Your task to perform on an android device: turn off location Image 0: 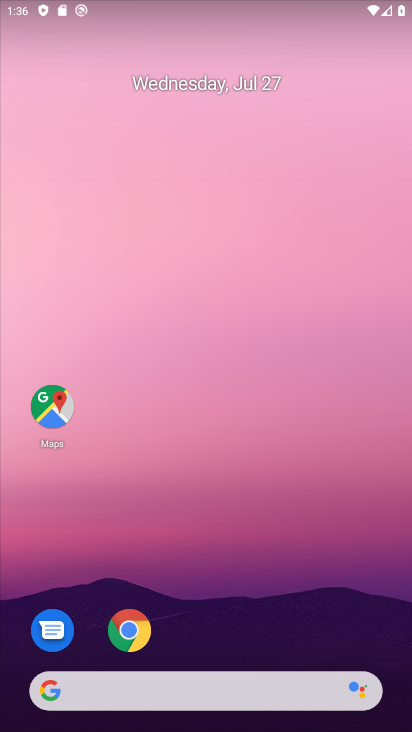
Step 0: drag from (376, 638) to (348, 52)
Your task to perform on an android device: turn off location Image 1: 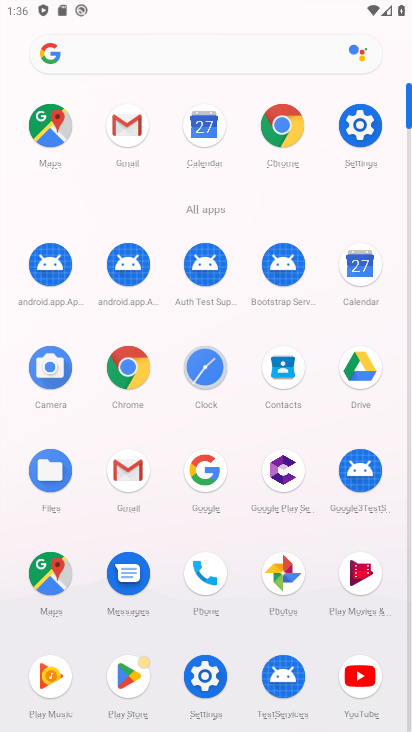
Step 1: click (201, 675)
Your task to perform on an android device: turn off location Image 2: 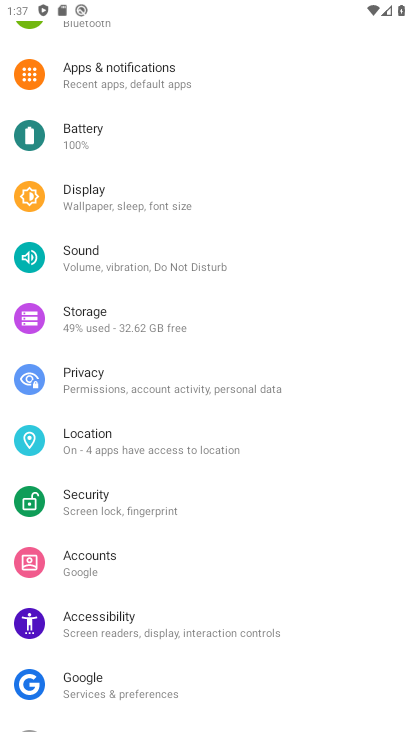
Step 2: click (77, 436)
Your task to perform on an android device: turn off location Image 3: 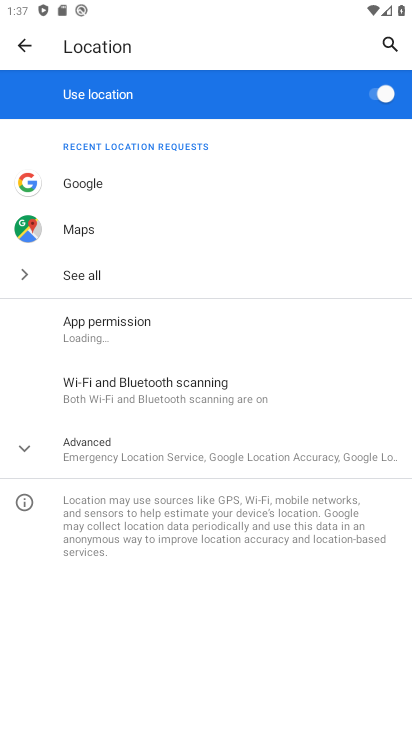
Step 3: click (367, 96)
Your task to perform on an android device: turn off location Image 4: 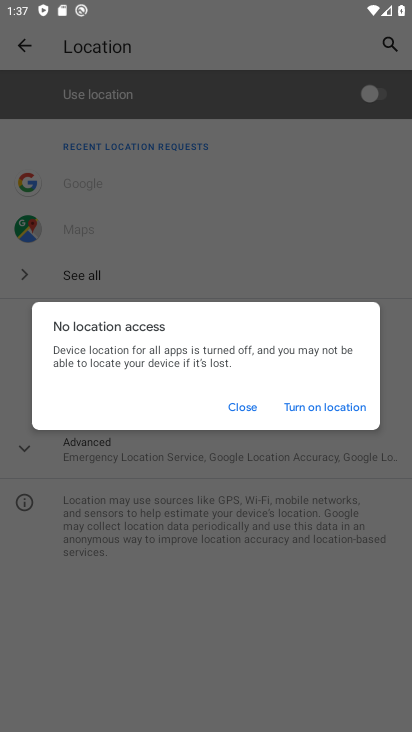
Step 4: click (235, 399)
Your task to perform on an android device: turn off location Image 5: 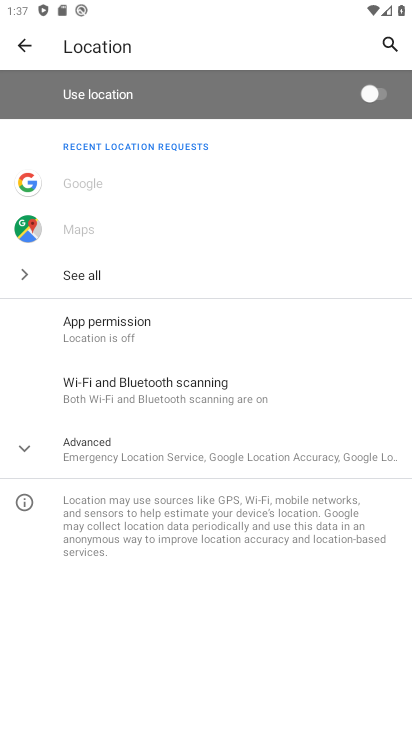
Step 5: task complete